Your task to perform on an android device: open a new tab in the chrome app Image 0: 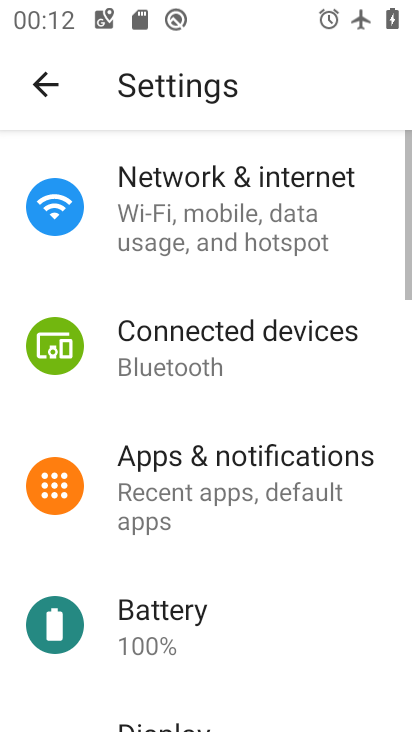
Step 0: press home button
Your task to perform on an android device: open a new tab in the chrome app Image 1: 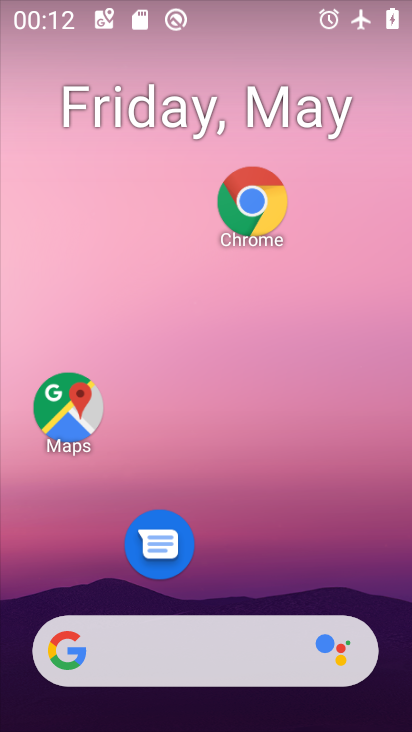
Step 1: click (248, 191)
Your task to perform on an android device: open a new tab in the chrome app Image 2: 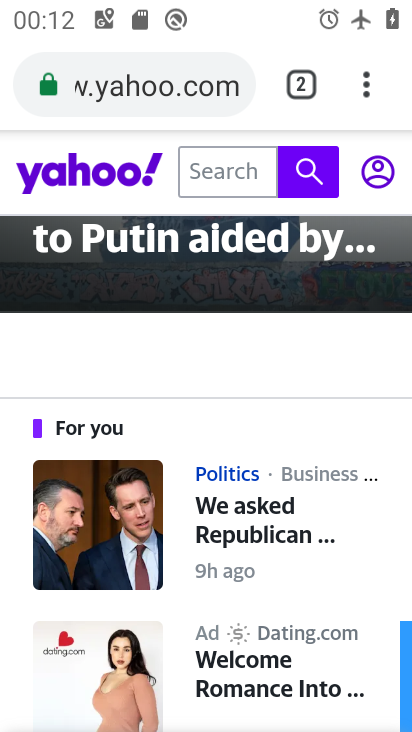
Step 2: click (306, 84)
Your task to perform on an android device: open a new tab in the chrome app Image 3: 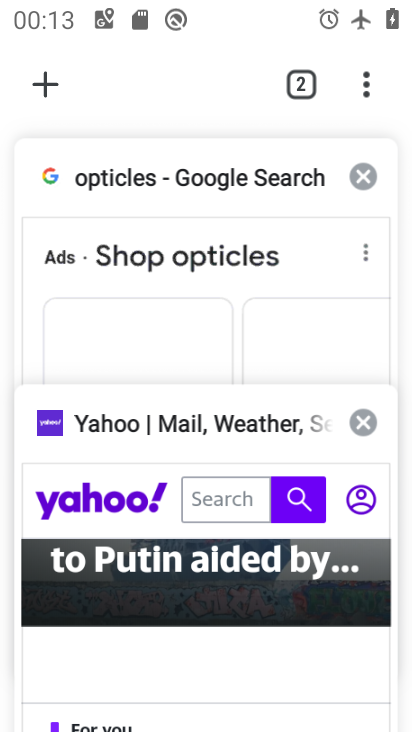
Step 3: click (365, 169)
Your task to perform on an android device: open a new tab in the chrome app Image 4: 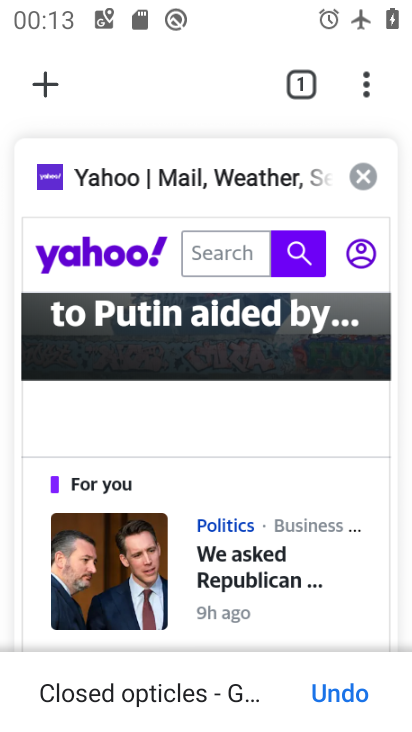
Step 4: click (362, 174)
Your task to perform on an android device: open a new tab in the chrome app Image 5: 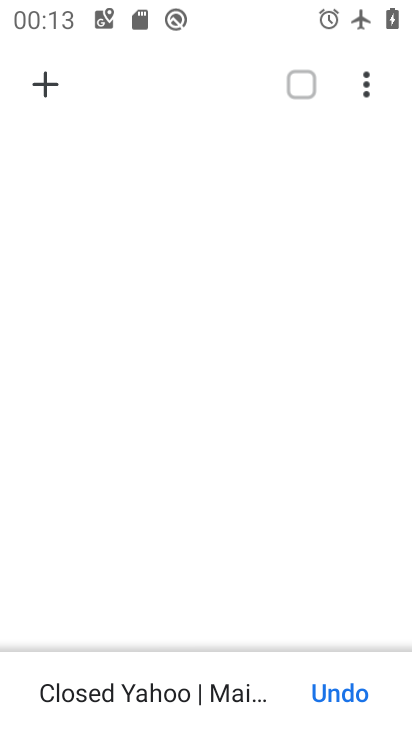
Step 5: click (54, 87)
Your task to perform on an android device: open a new tab in the chrome app Image 6: 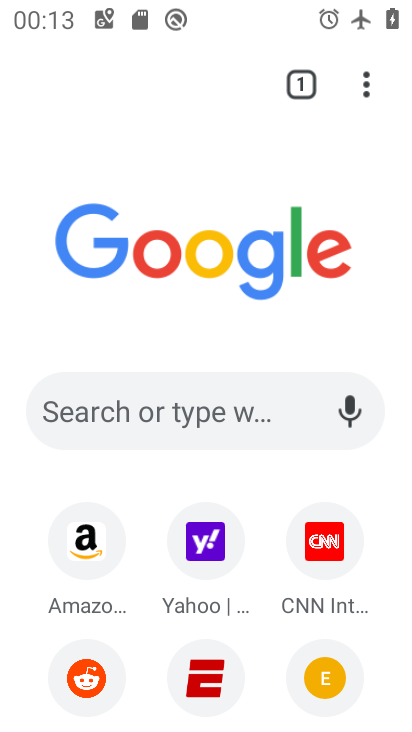
Step 6: click (367, 81)
Your task to perform on an android device: open a new tab in the chrome app Image 7: 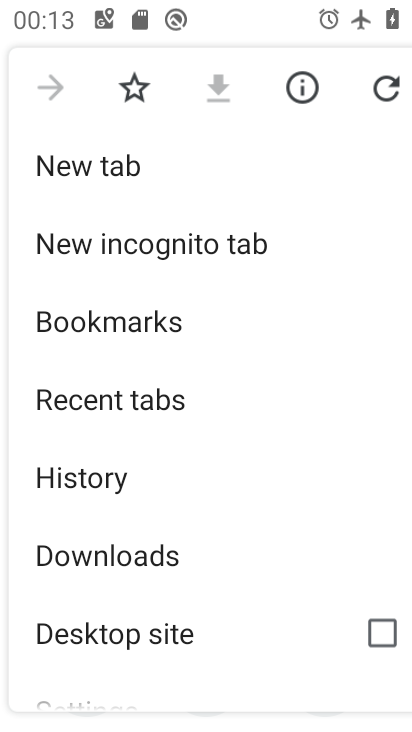
Step 7: click (133, 162)
Your task to perform on an android device: open a new tab in the chrome app Image 8: 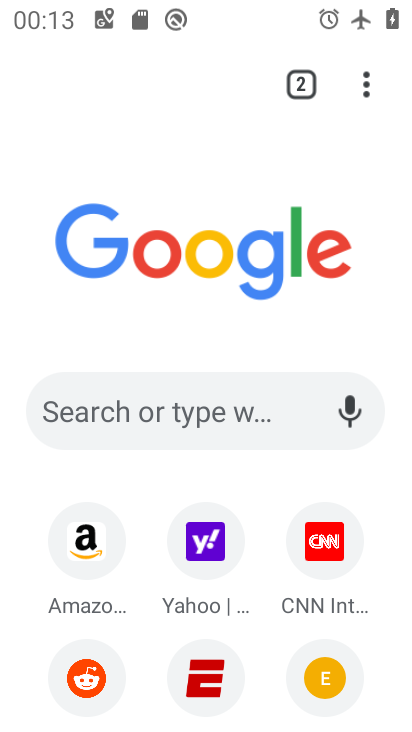
Step 8: task complete